Your task to perform on an android device: Clear the cart on newegg.com. Add "apple airpods pro" to the cart on newegg.com Image 0: 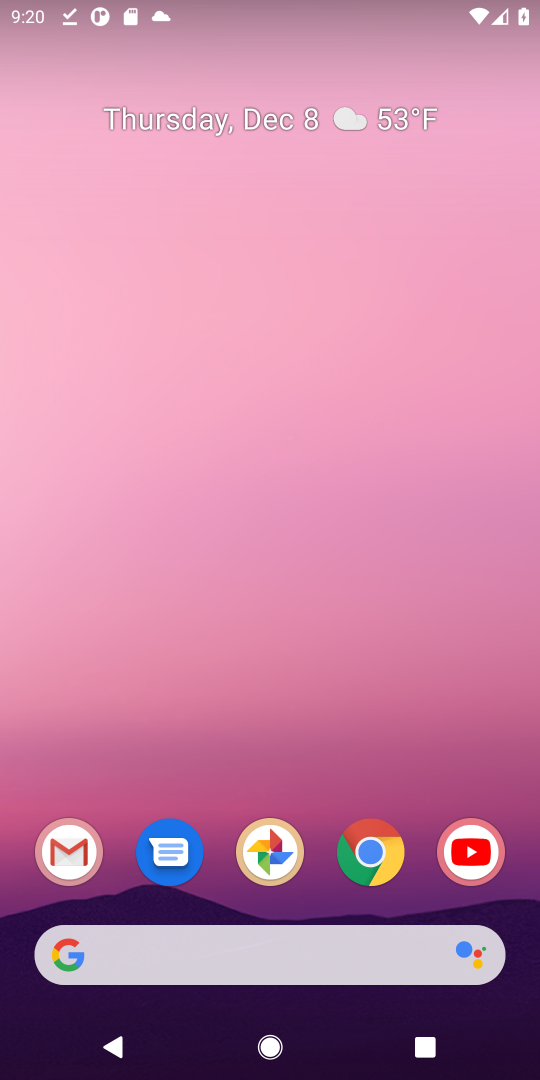
Step 0: click (244, 962)
Your task to perform on an android device: Clear the cart on newegg.com. Add "apple airpods pro" to the cart on newegg.com Image 1: 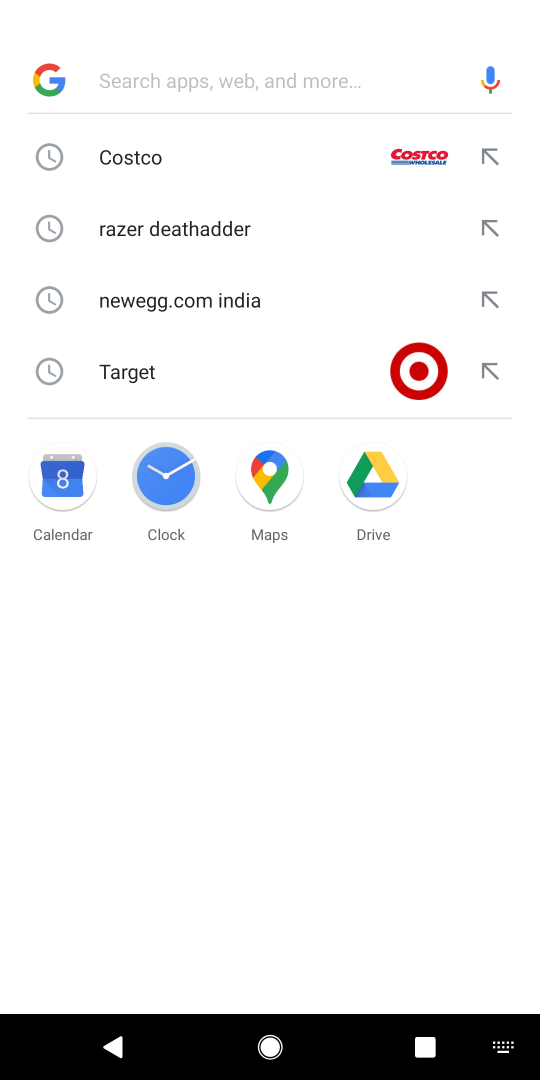
Step 1: type "newegg"
Your task to perform on an android device: Clear the cart on newegg.com. Add "apple airpods pro" to the cart on newegg.com Image 2: 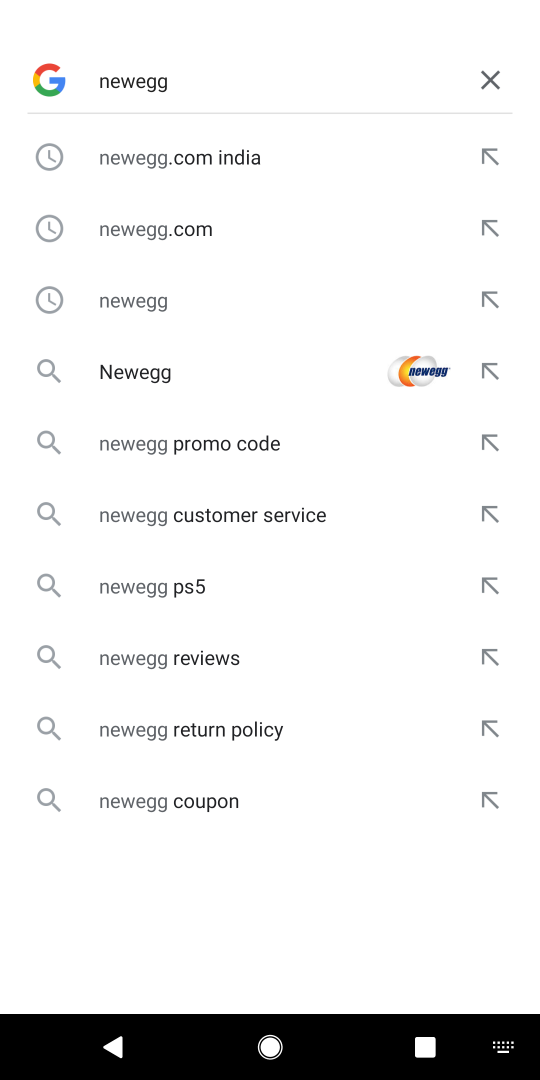
Step 2: click (272, 146)
Your task to perform on an android device: Clear the cart on newegg.com. Add "apple airpods pro" to the cart on newegg.com Image 3: 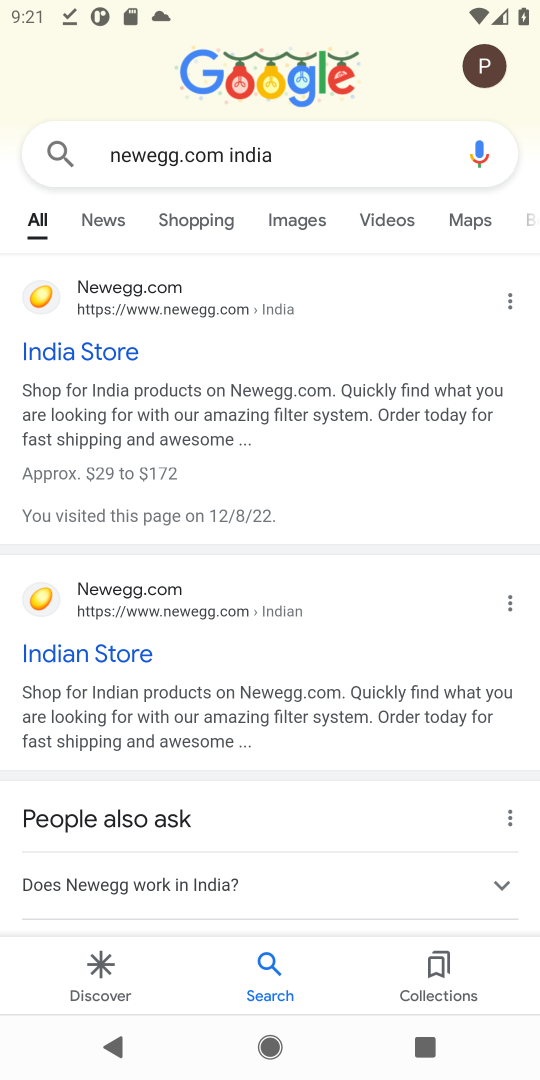
Step 3: click (122, 365)
Your task to perform on an android device: Clear the cart on newegg.com. Add "apple airpods pro" to the cart on newegg.com Image 4: 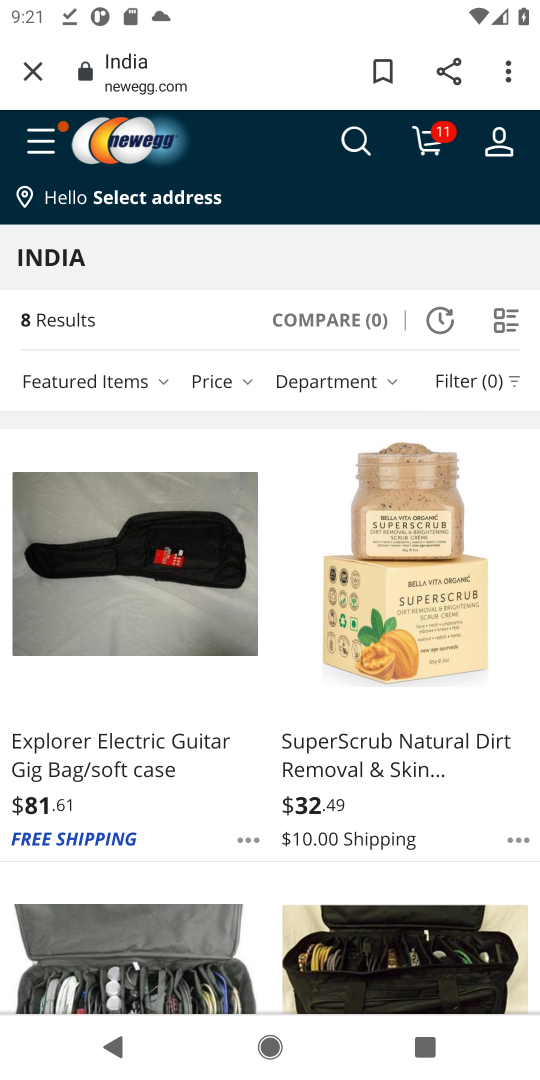
Step 4: click (363, 146)
Your task to perform on an android device: Clear the cart on newegg.com. Add "apple airpods pro" to the cart on newegg.com Image 5: 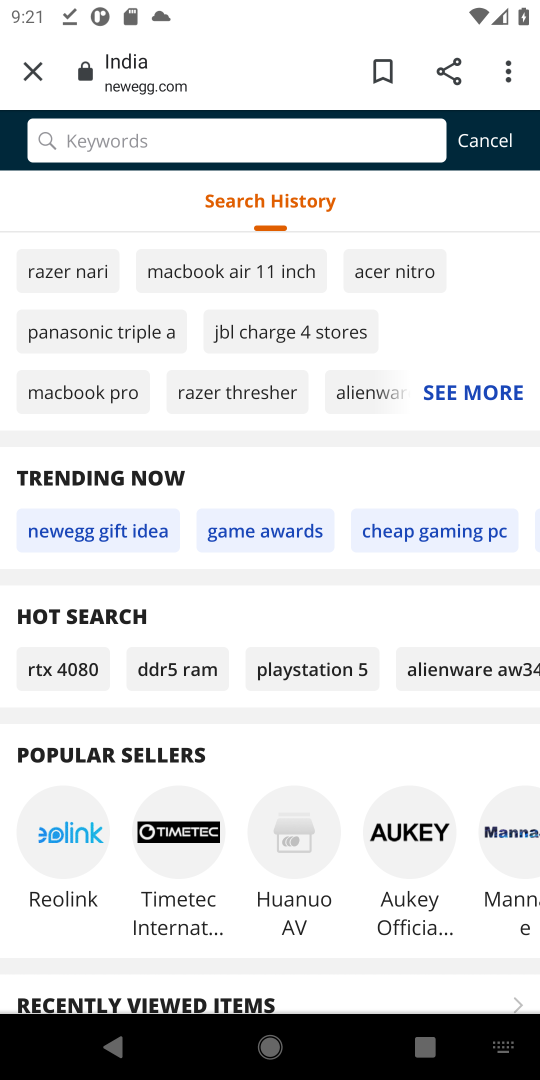
Step 5: type "apple airpods"
Your task to perform on an android device: Clear the cart on newegg.com. Add "apple airpods pro" to the cart on newegg.com Image 6: 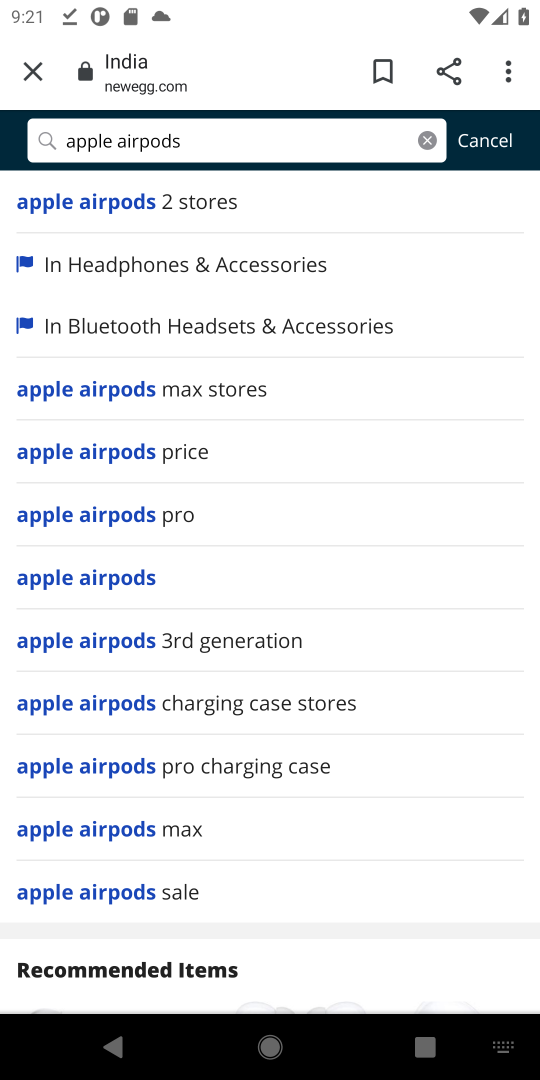
Step 6: click (200, 217)
Your task to perform on an android device: Clear the cart on newegg.com. Add "apple airpods pro" to the cart on newegg.com Image 7: 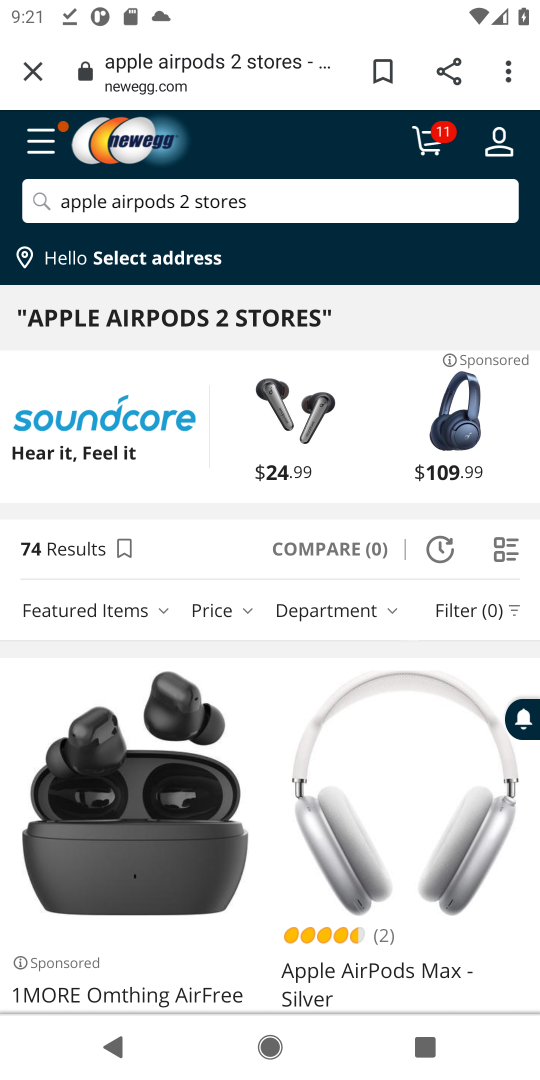
Step 7: task complete